Your task to perform on an android device: Open Reddit.com Image 0: 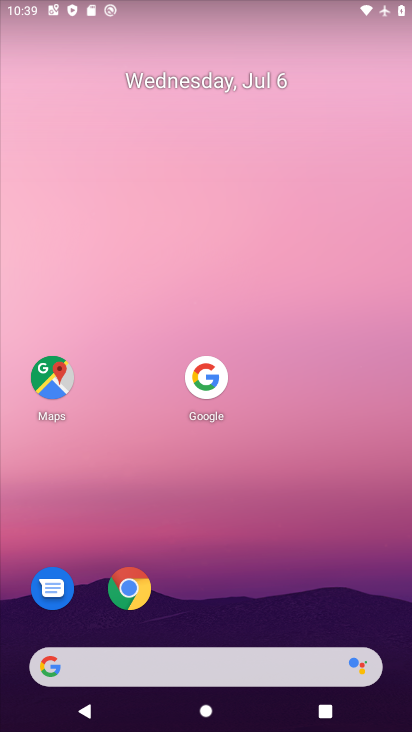
Step 0: click (136, 595)
Your task to perform on an android device: Open Reddit.com Image 1: 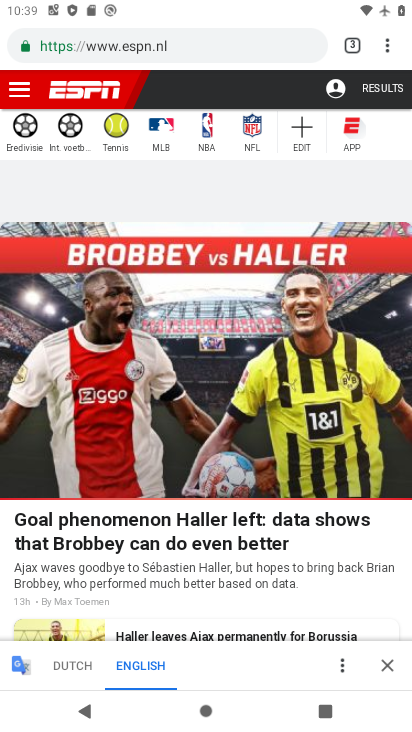
Step 1: click (387, 45)
Your task to perform on an android device: Open Reddit.com Image 2: 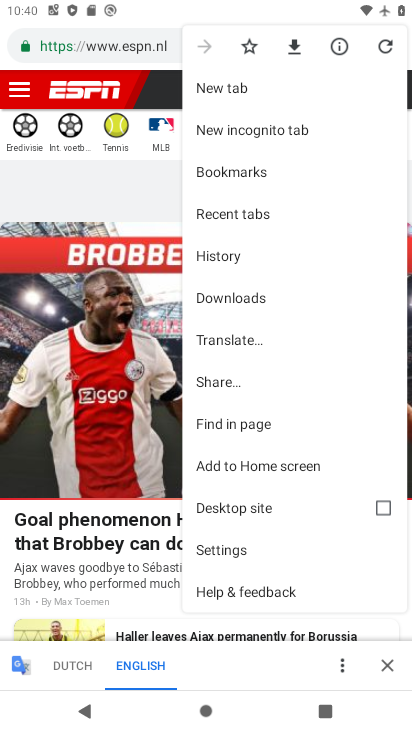
Step 2: click (243, 90)
Your task to perform on an android device: Open Reddit.com Image 3: 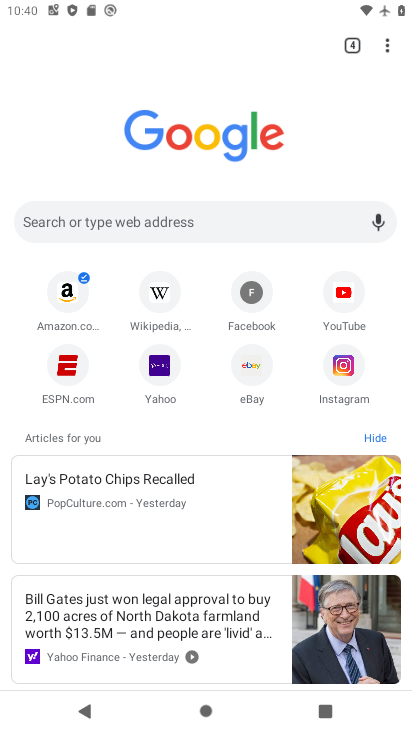
Step 3: click (93, 223)
Your task to perform on an android device: Open Reddit.com Image 4: 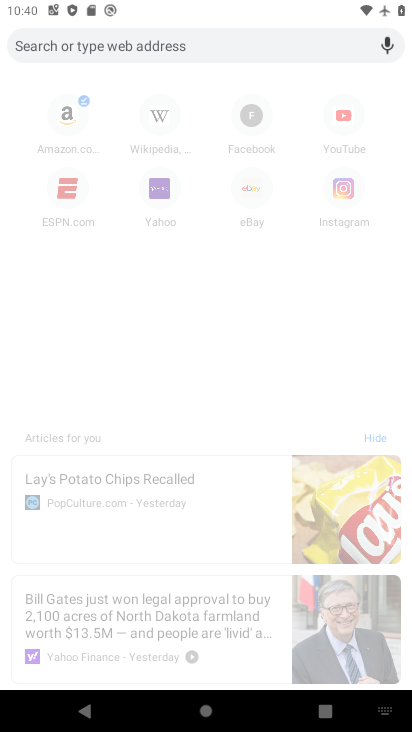
Step 4: type "reddit.com"
Your task to perform on an android device: Open Reddit.com Image 5: 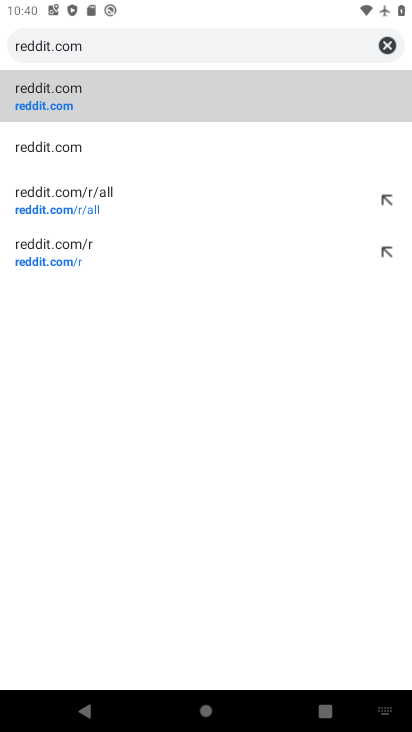
Step 5: click (88, 94)
Your task to perform on an android device: Open Reddit.com Image 6: 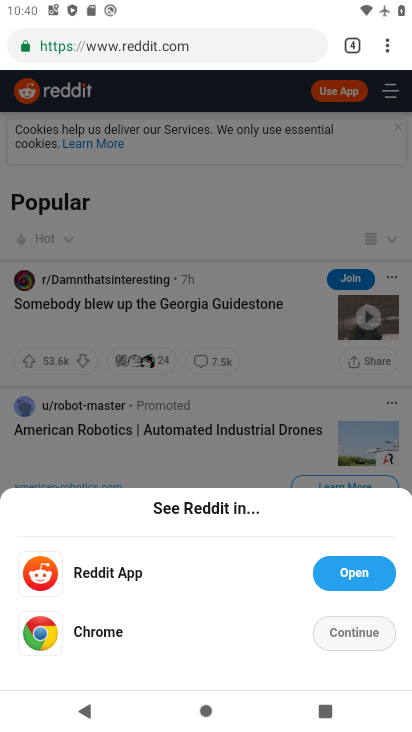
Step 6: task complete